Your task to perform on an android device: Open Youtube and go to "Your channel" Image 0: 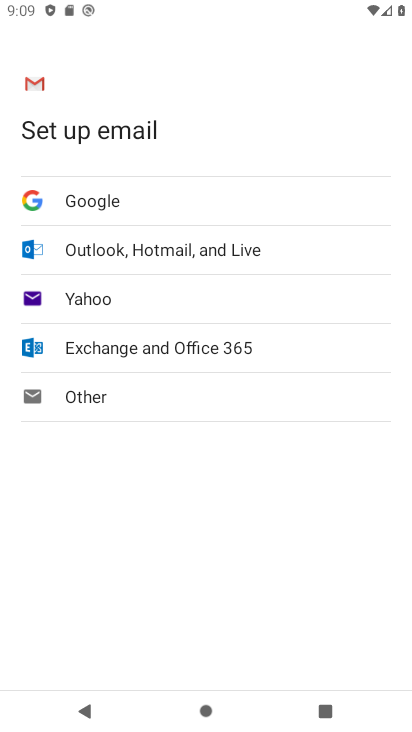
Step 0: press home button
Your task to perform on an android device: Open Youtube and go to "Your channel" Image 1: 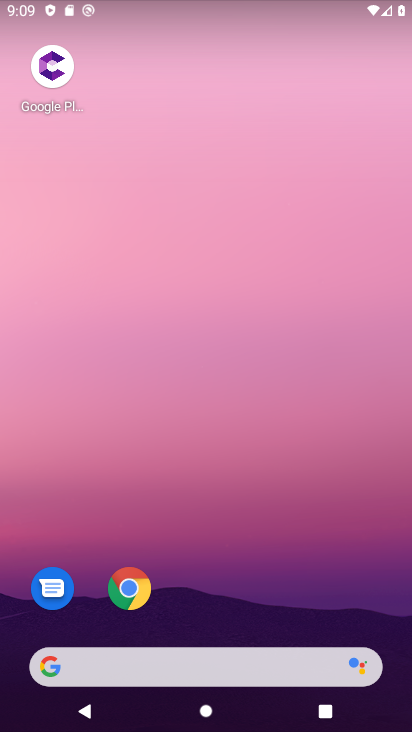
Step 1: drag from (222, 491) to (266, 42)
Your task to perform on an android device: Open Youtube and go to "Your channel" Image 2: 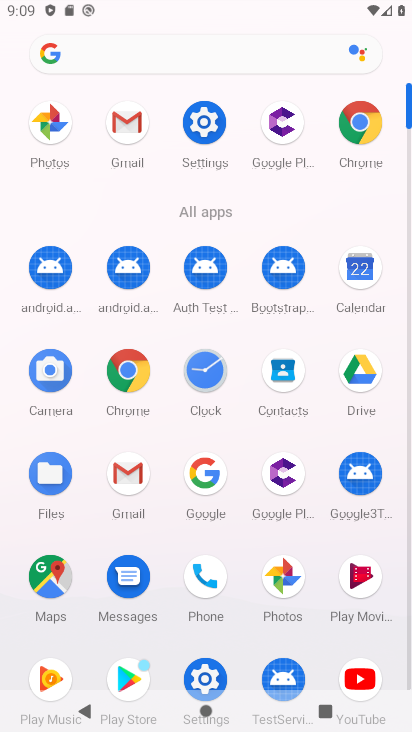
Step 2: click (356, 679)
Your task to perform on an android device: Open Youtube and go to "Your channel" Image 3: 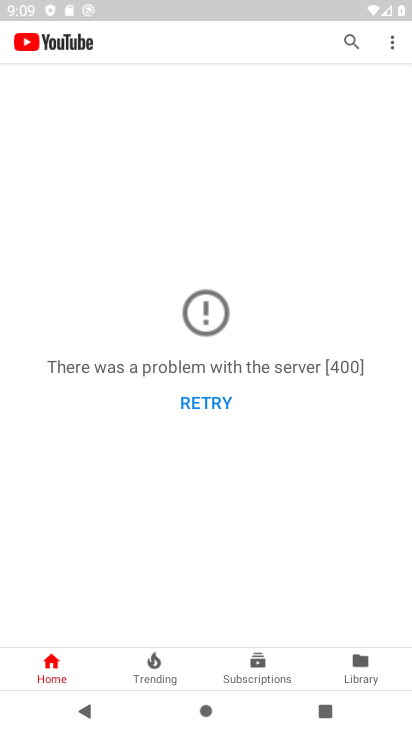
Step 3: task complete